Your task to perform on an android device: check storage Image 0: 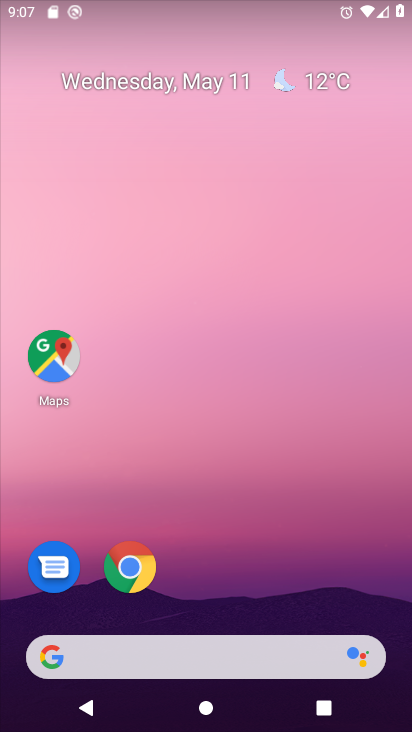
Step 0: drag from (280, 542) to (270, 68)
Your task to perform on an android device: check storage Image 1: 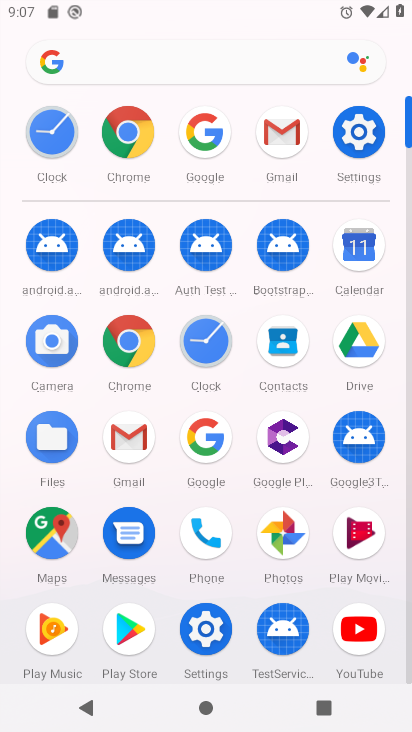
Step 1: click (334, 146)
Your task to perform on an android device: check storage Image 2: 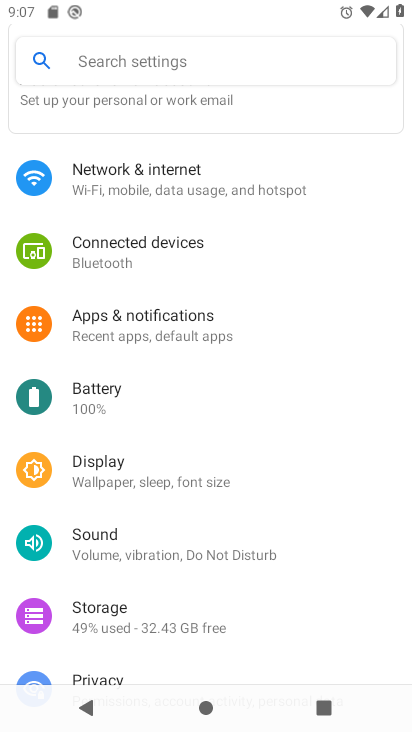
Step 2: click (200, 612)
Your task to perform on an android device: check storage Image 3: 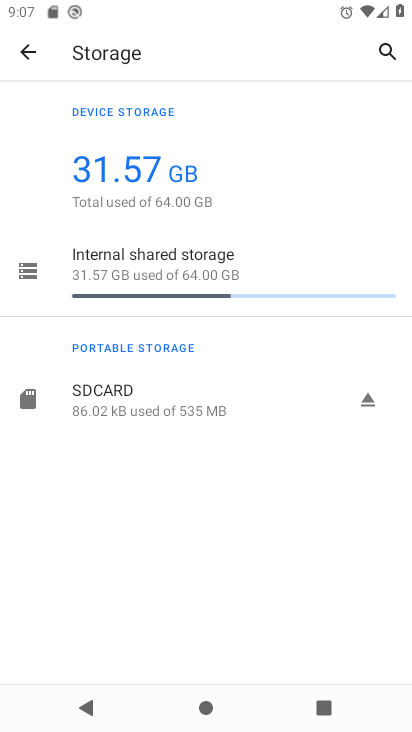
Step 3: task complete